Your task to perform on an android device: check battery use Image 0: 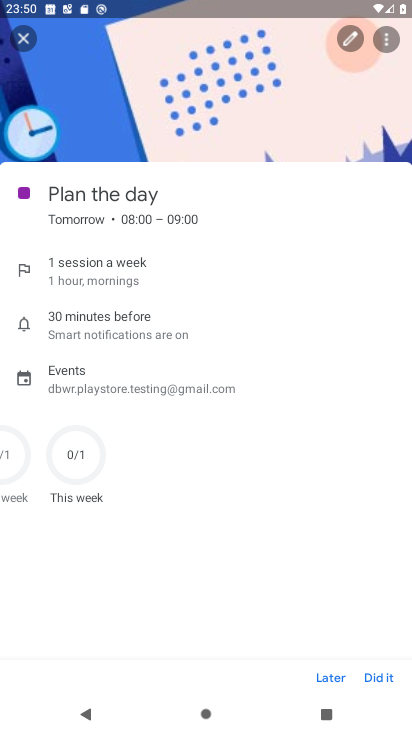
Step 0: press home button
Your task to perform on an android device: check battery use Image 1: 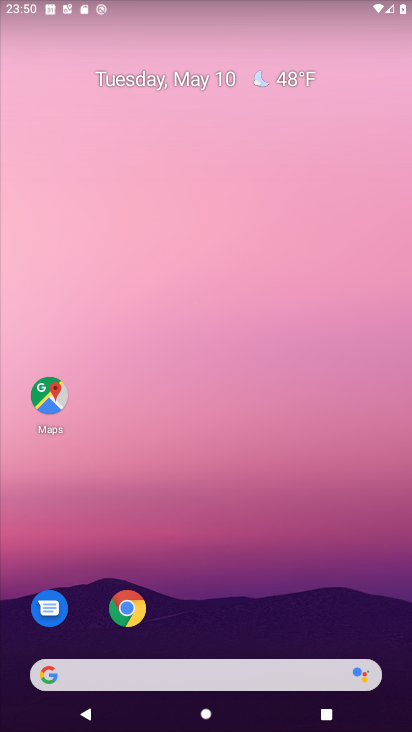
Step 1: drag from (309, 644) to (283, 279)
Your task to perform on an android device: check battery use Image 2: 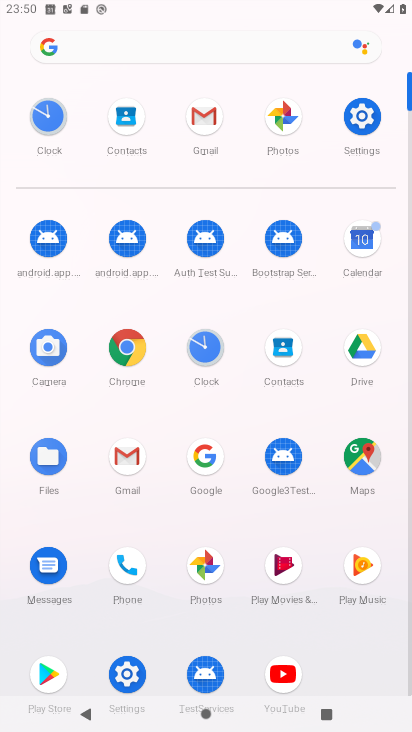
Step 2: click (362, 114)
Your task to perform on an android device: check battery use Image 3: 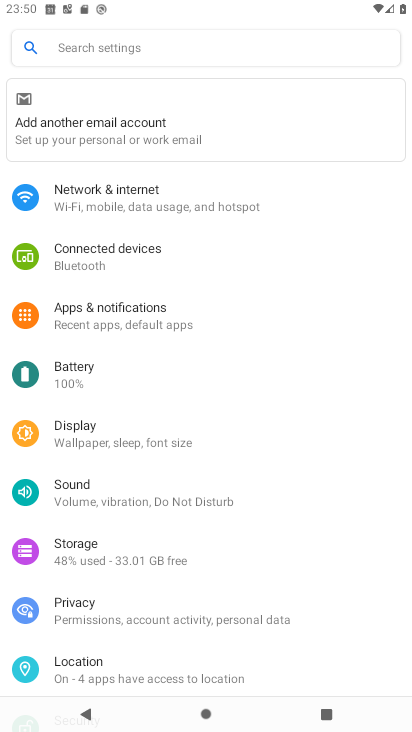
Step 3: click (80, 370)
Your task to perform on an android device: check battery use Image 4: 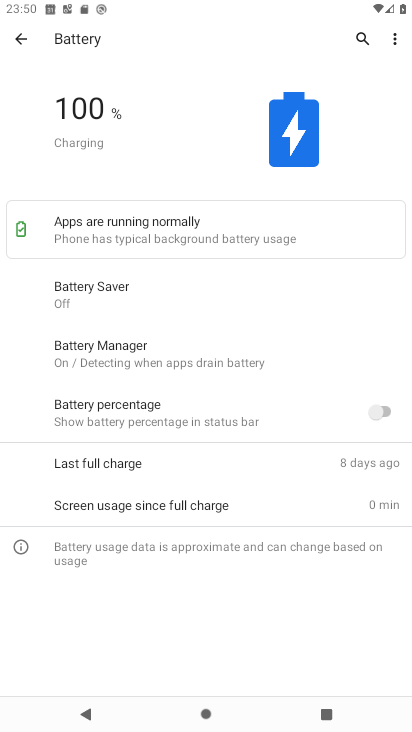
Step 4: task complete